Your task to perform on an android device: read, delete, or share a saved page in the chrome app Image 0: 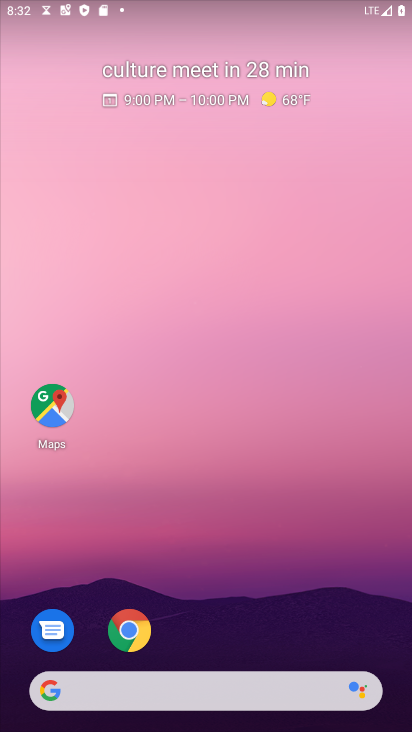
Step 0: click (128, 627)
Your task to perform on an android device: read, delete, or share a saved page in the chrome app Image 1: 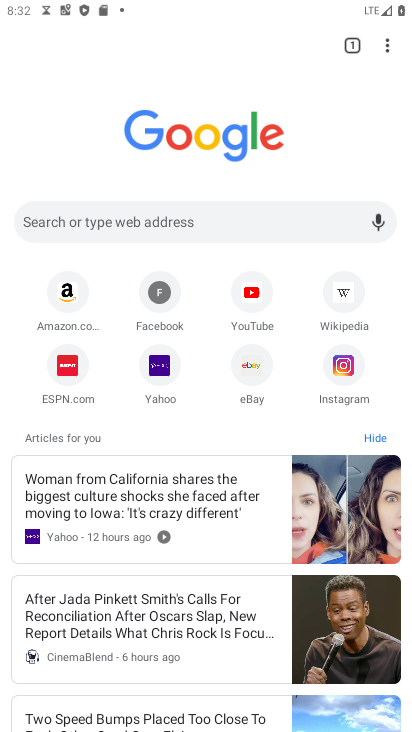
Step 1: click (386, 45)
Your task to perform on an android device: read, delete, or share a saved page in the chrome app Image 2: 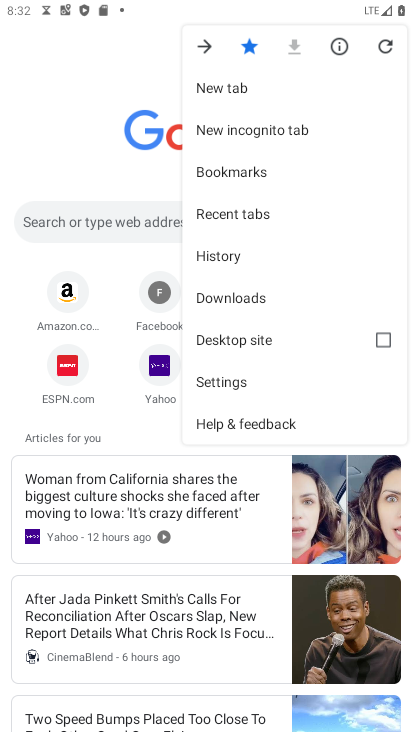
Step 2: click (233, 298)
Your task to perform on an android device: read, delete, or share a saved page in the chrome app Image 3: 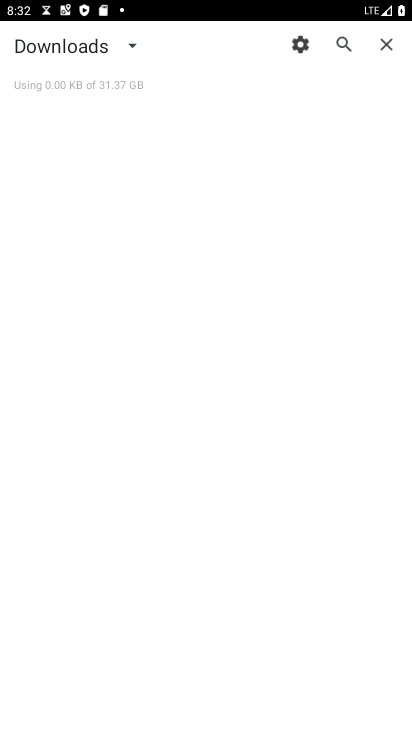
Step 3: task complete